Your task to perform on an android device: Toggle the flashlight Image 0: 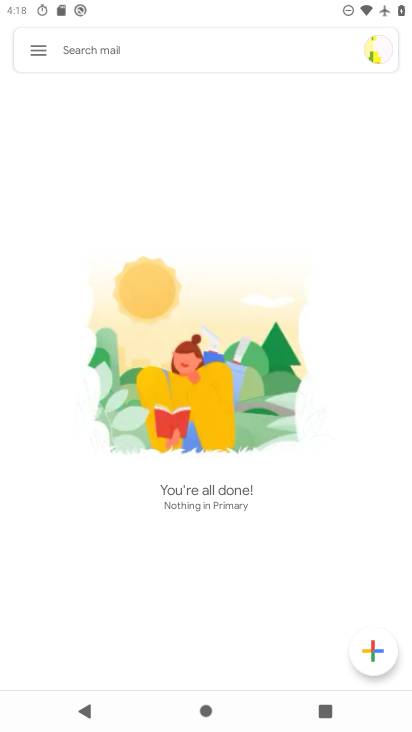
Step 0: press home button
Your task to perform on an android device: Toggle the flashlight Image 1: 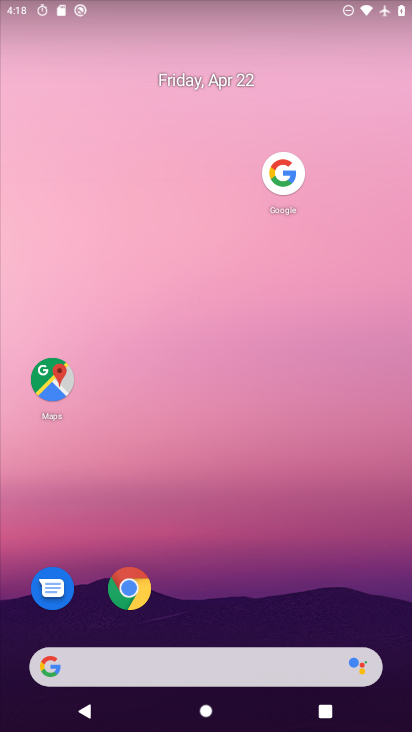
Step 1: drag from (191, 637) to (220, 14)
Your task to perform on an android device: Toggle the flashlight Image 2: 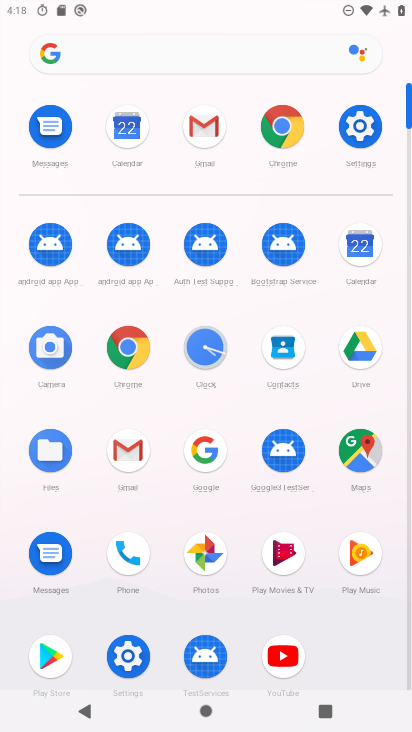
Step 2: click (369, 129)
Your task to perform on an android device: Toggle the flashlight Image 3: 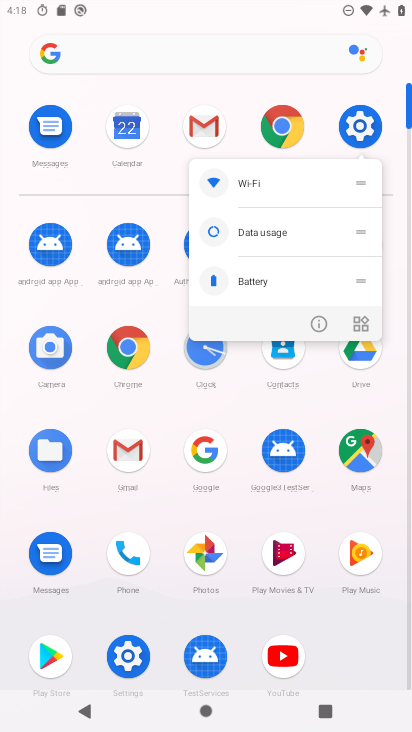
Step 3: click (361, 102)
Your task to perform on an android device: Toggle the flashlight Image 4: 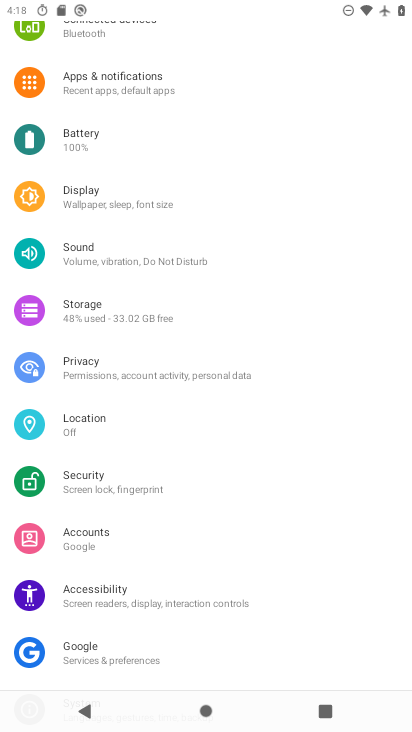
Step 4: task complete